Your task to perform on an android device: change notification settings in the gmail app Image 0: 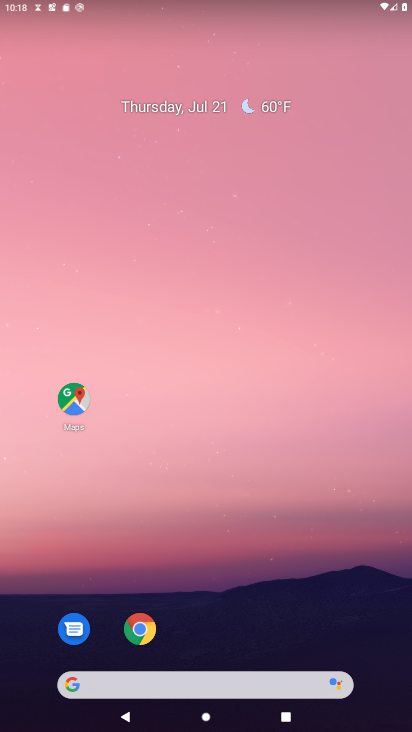
Step 0: drag from (170, 651) to (249, 169)
Your task to perform on an android device: change notification settings in the gmail app Image 1: 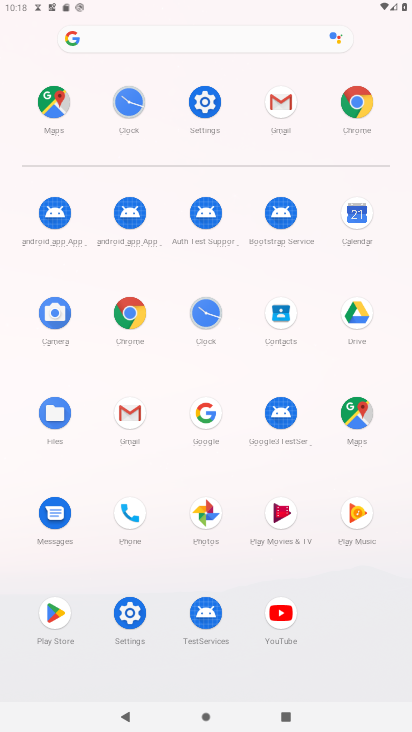
Step 1: click (292, 98)
Your task to perform on an android device: change notification settings in the gmail app Image 2: 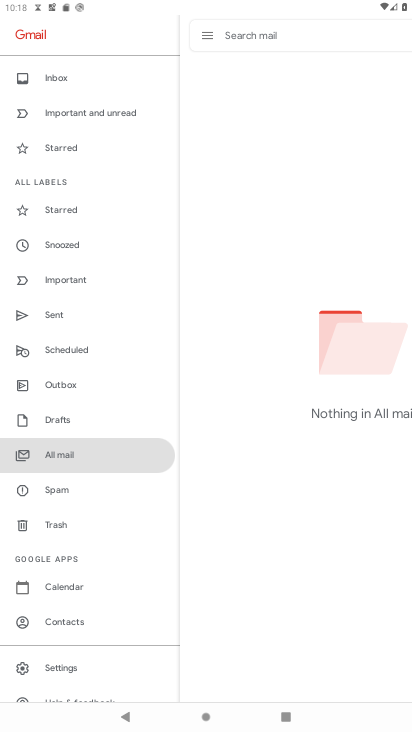
Step 2: click (60, 654)
Your task to perform on an android device: change notification settings in the gmail app Image 3: 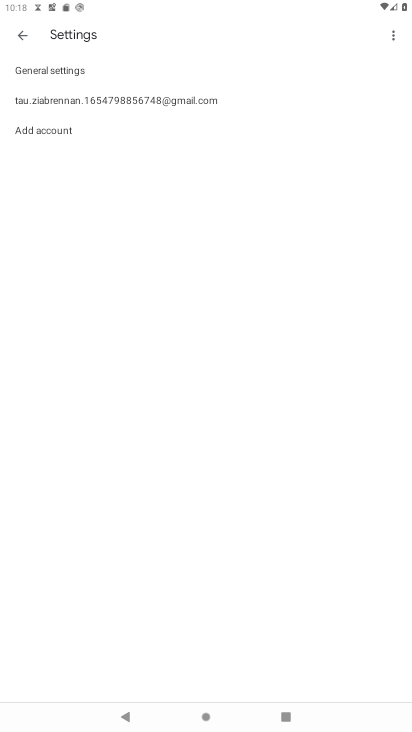
Step 3: click (44, 91)
Your task to perform on an android device: change notification settings in the gmail app Image 4: 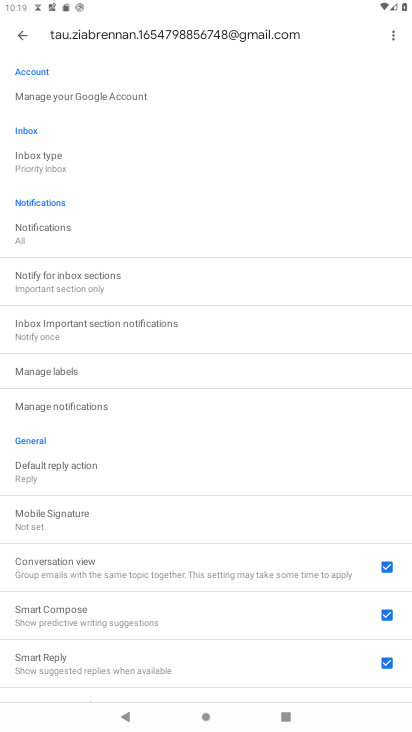
Step 4: click (69, 223)
Your task to perform on an android device: change notification settings in the gmail app Image 5: 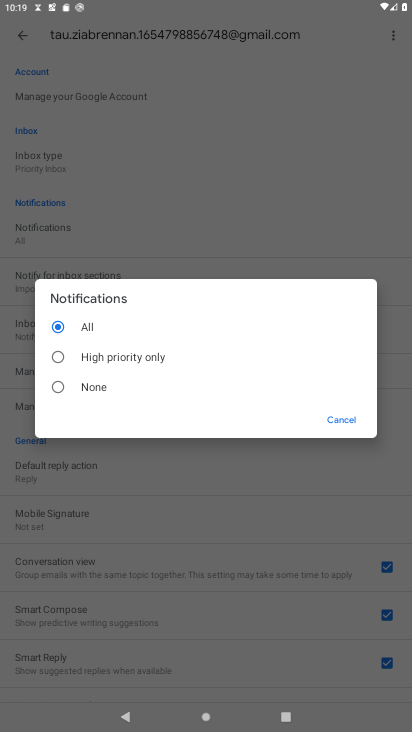
Step 5: click (96, 383)
Your task to perform on an android device: change notification settings in the gmail app Image 6: 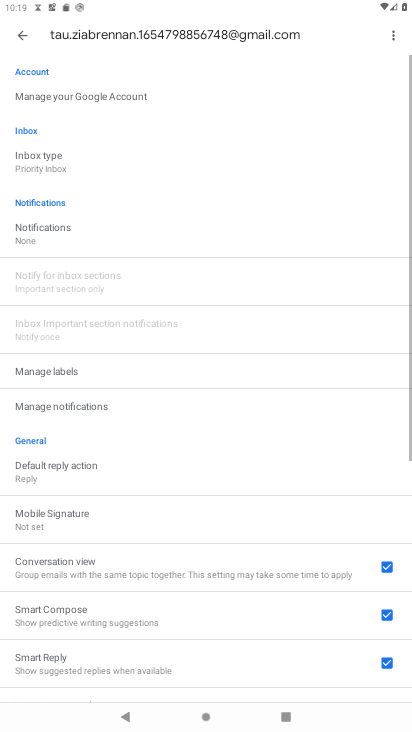
Step 6: task complete